Your task to perform on an android device: change the upload size in google photos Image 0: 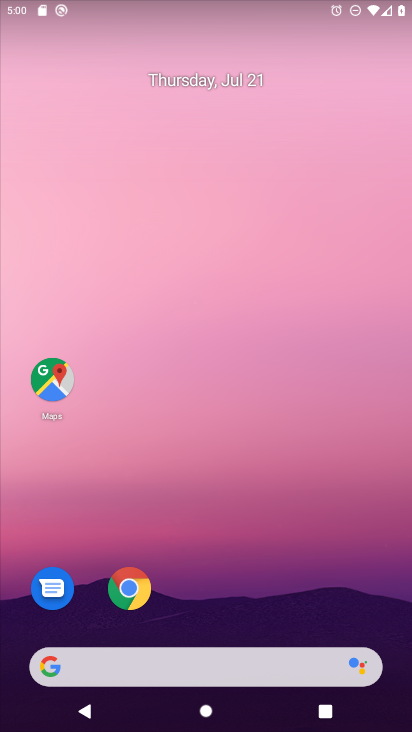
Step 0: drag from (363, 614) to (258, 14)
Your task to perform on an android device: change the upload size in google photos Image 1: 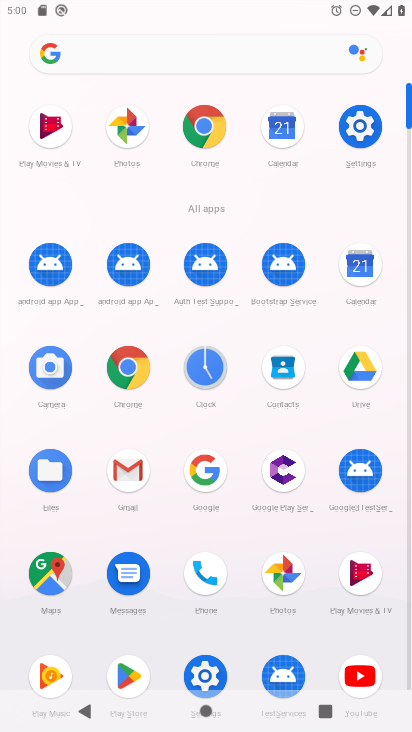
Step 1: click (130, 136)
Your task to perform on an android device: change the upload size in google photos Image 2: 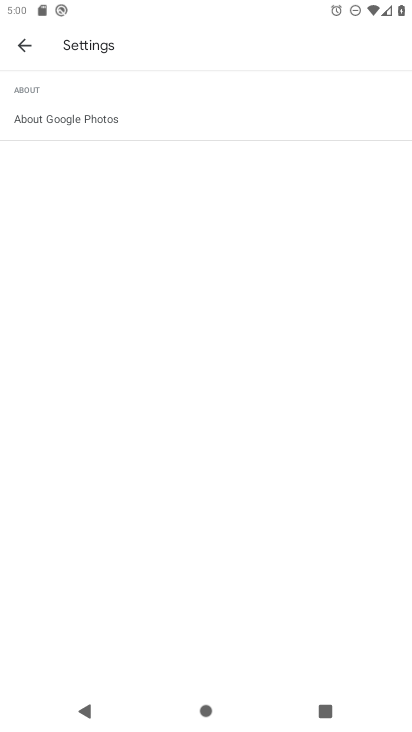
Step 2: click (33, 40)
Your task to perform on an android device: change the upload size in google photos Image 3: 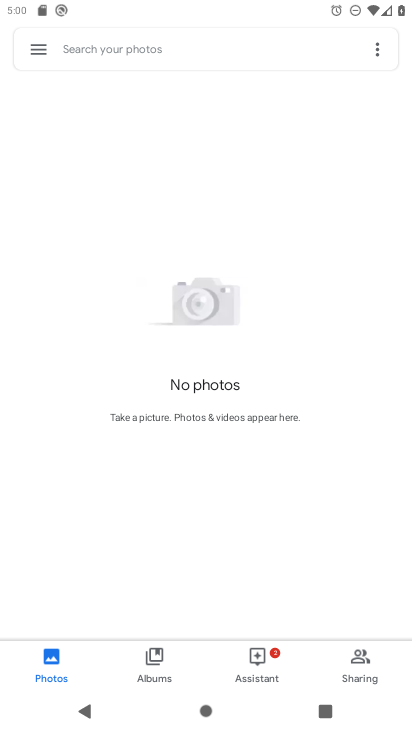
Step 3: click (33, 40)
Your task to perform on an android device: change the upload size in google photos Image 4: 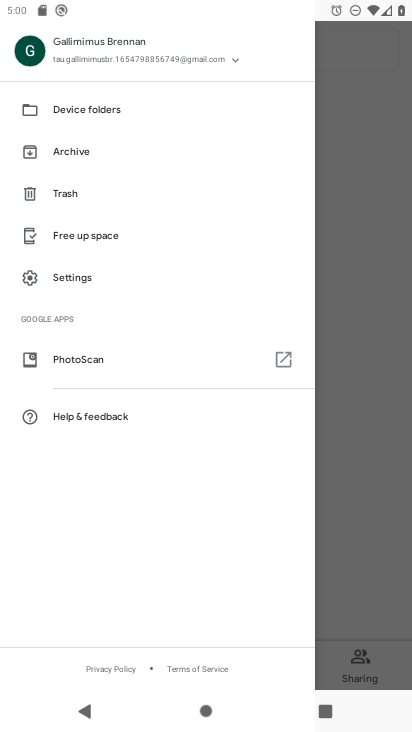
Step 4: click (91, 283)
Your task to perform on an android device: change the upload size in google photos Image 5: 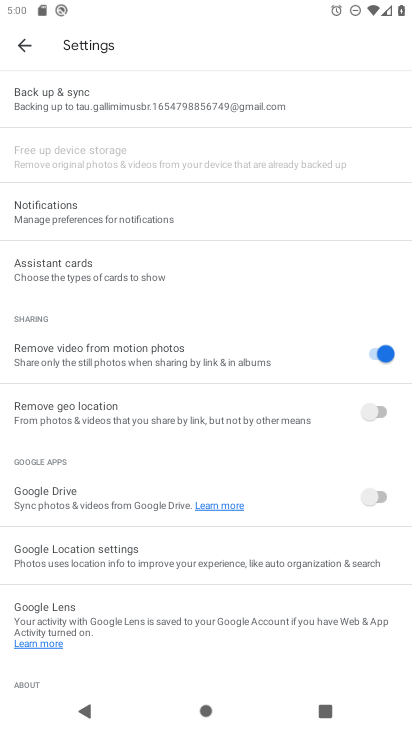
Step 5: click (144, 96)
Your task to perform on an android device: change the upload size in google photos Image 6: 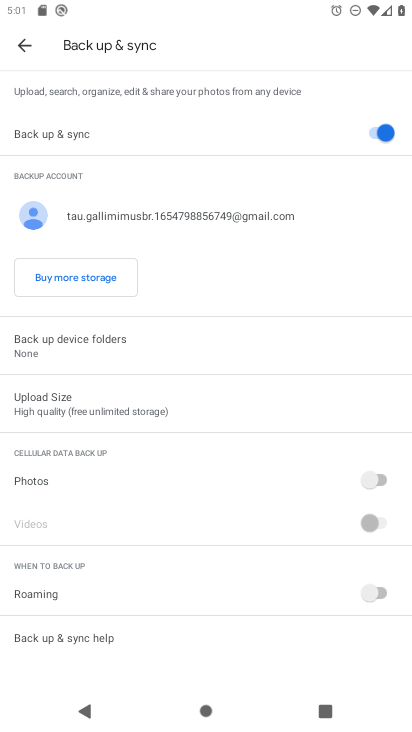
Step 6: click (157, 412)
Your task to perform on an android device: change the upload size in google photos Image 7: 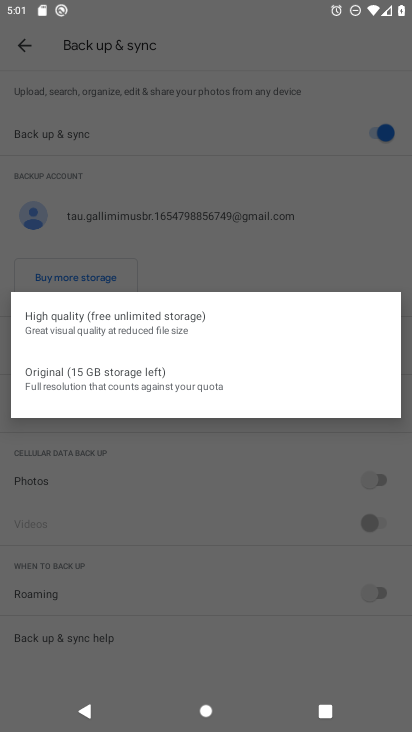
Step 7: click (168, 399)
Your task to perform on an android device: change the upload size in google photos Image 8: 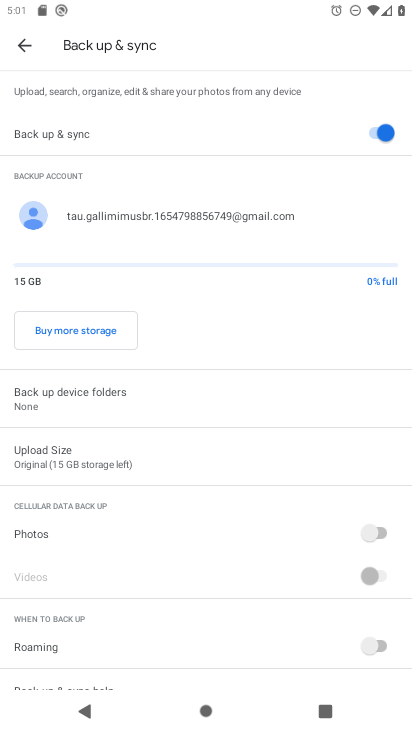
Step 8: task complete